Your task to perform on an android device: Add macbook pro to the cart on ebay.com, then select checkout. Image 0: 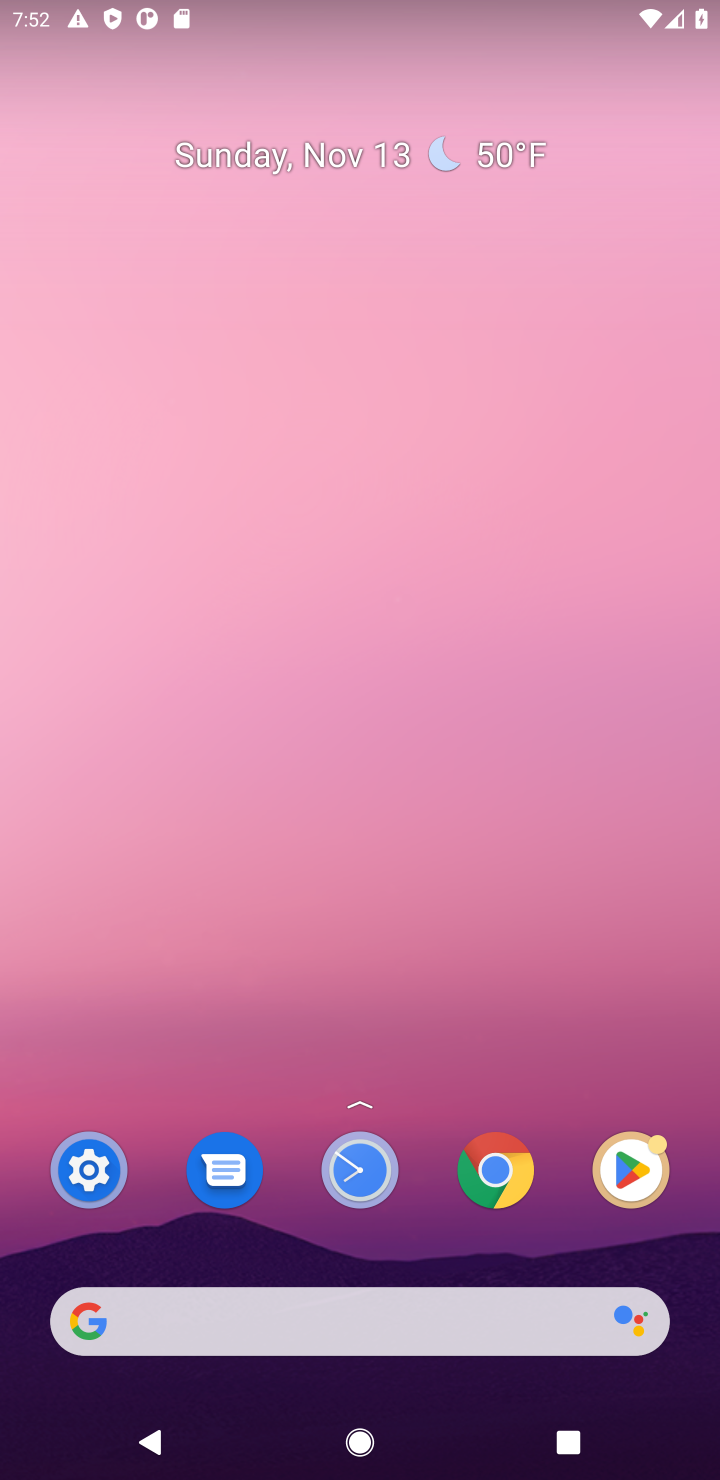
Step 0: click (358, 1360)
Your task to perform on an android device: Add macbook pro to the cart on ebay.com, then select checkout. Image 1: 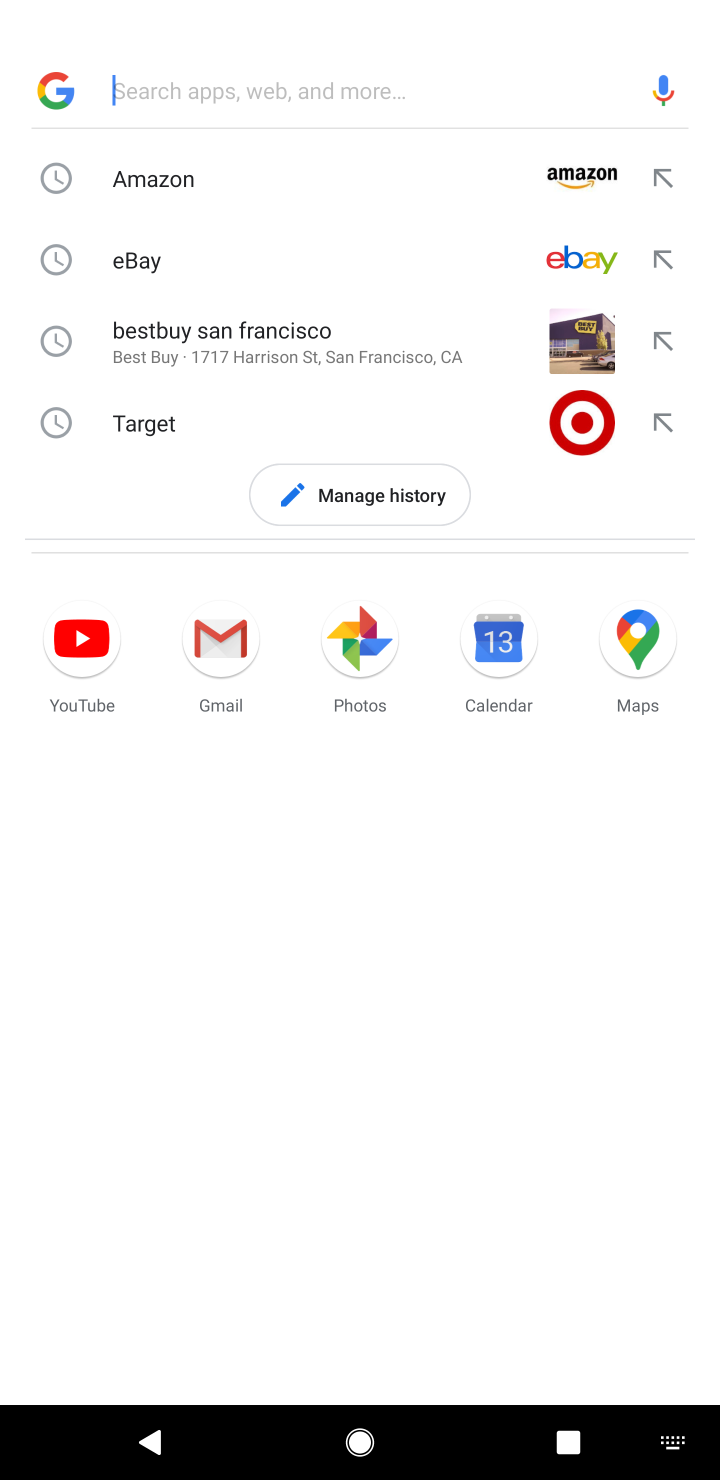
Step 1: click (188, 274)
Your task to perform on an android device: Add macbook pro to the cart on ebay.com, then select checkout. Image 2: 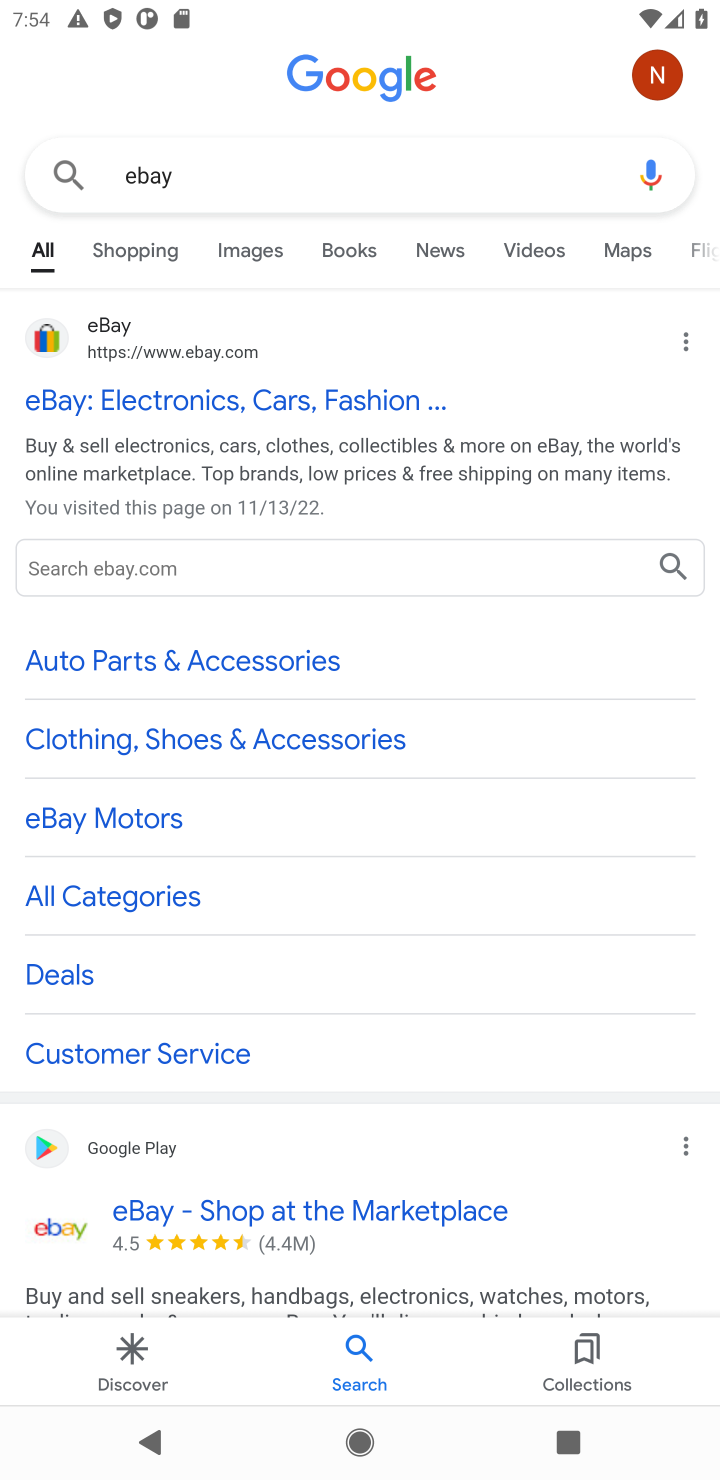
Step 2: click (181, 419)
Your task to perform on an android device: Add macbook pro to the cart on ebay.com, then select checkout. Image 3: 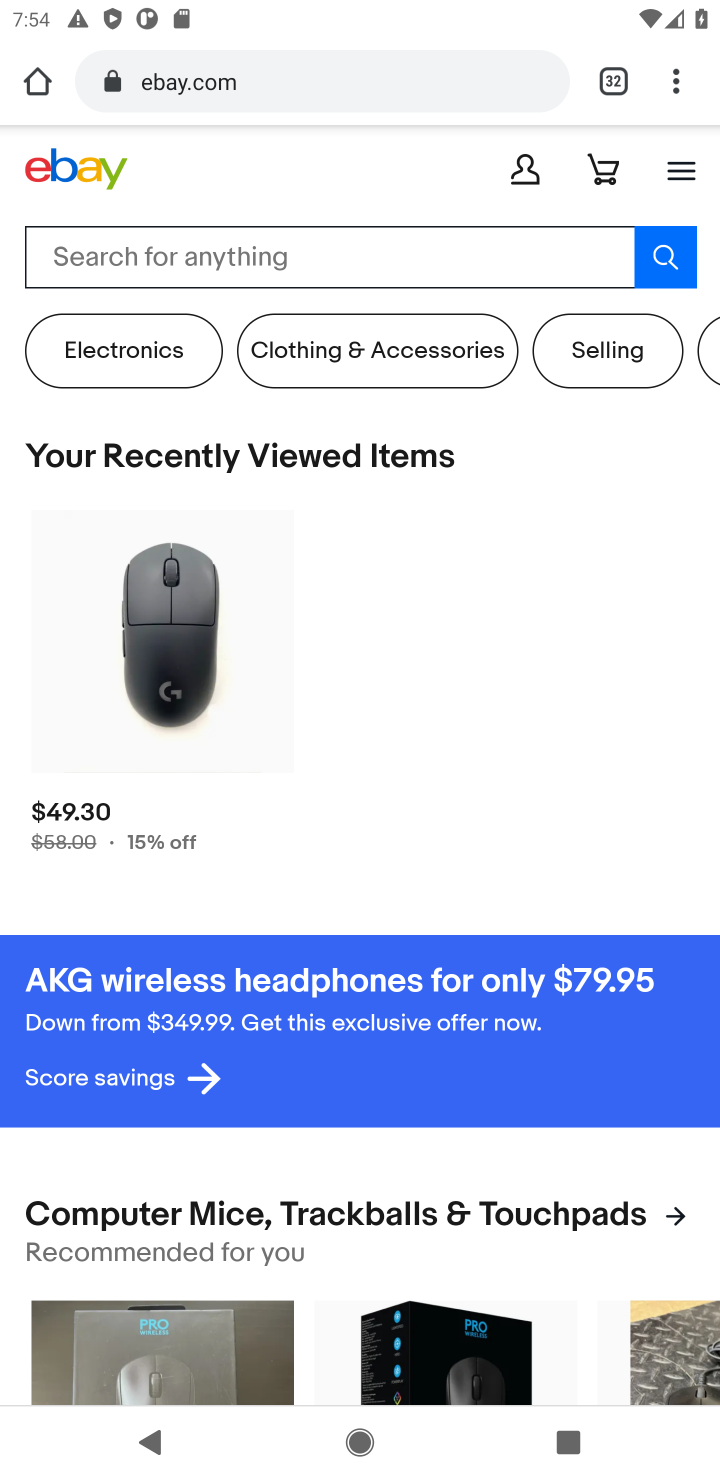
Step 3: task complete